Your task to perform on an android device: change notifications settings Image 0: 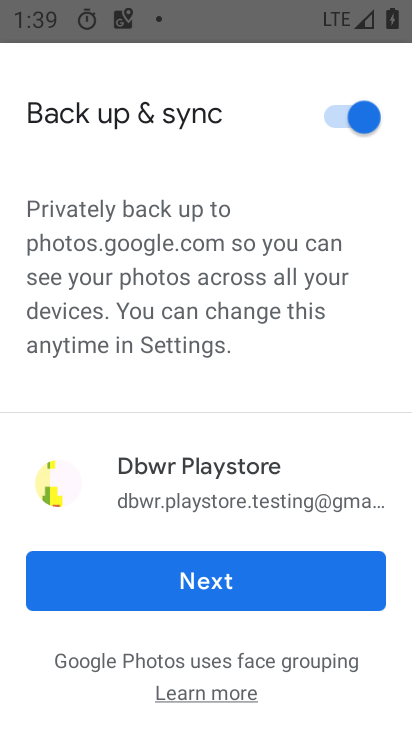
Step 0: press home button
Your task to perform on an android device: change notifications settings Image 1: 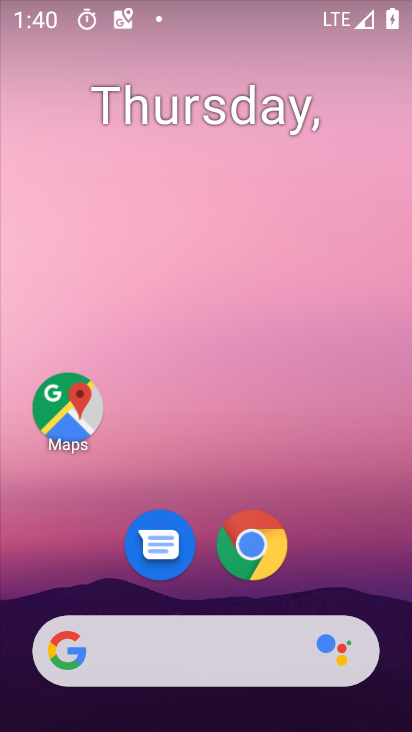
Step 1: drag from (303, 637) to (248, 0)
Your task to perform on an android device: change notifications settings Image 2: 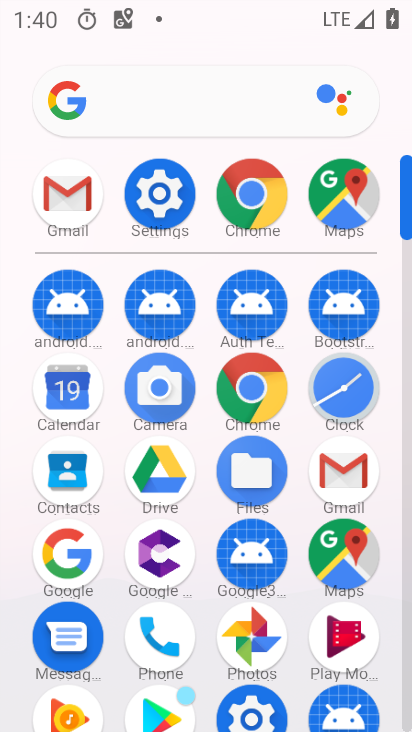
Step 2: click (153, 184)
Your task to perform on an android device: change notifications settings Image 3: 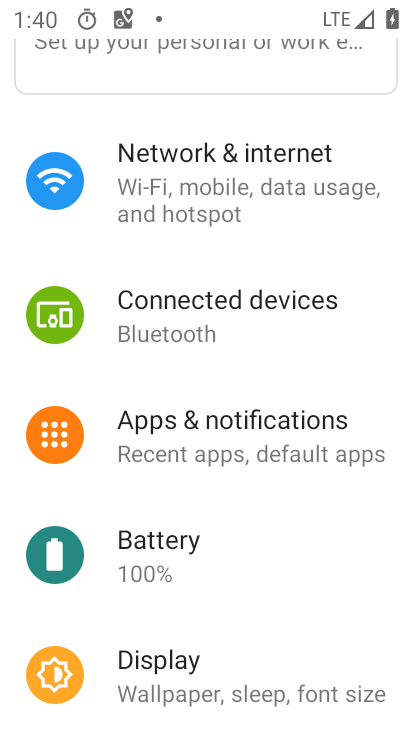
Step 3: click (256, 425)
Your task to perform on an android device: change notifications settings Image 4: 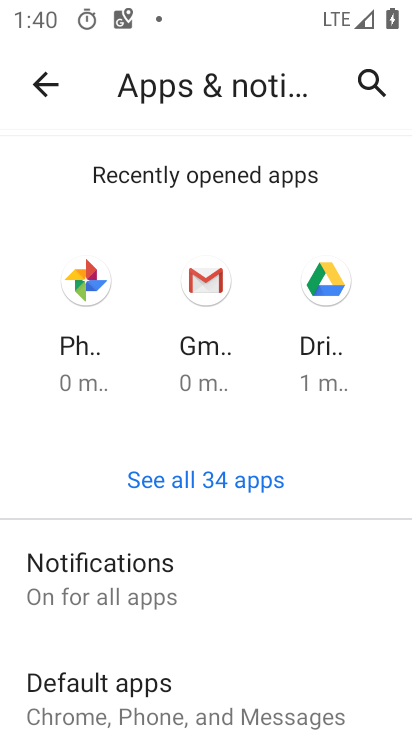
Step 4: click (184, 582)
Your task to perform on an android device: change notifications settings Image 5: 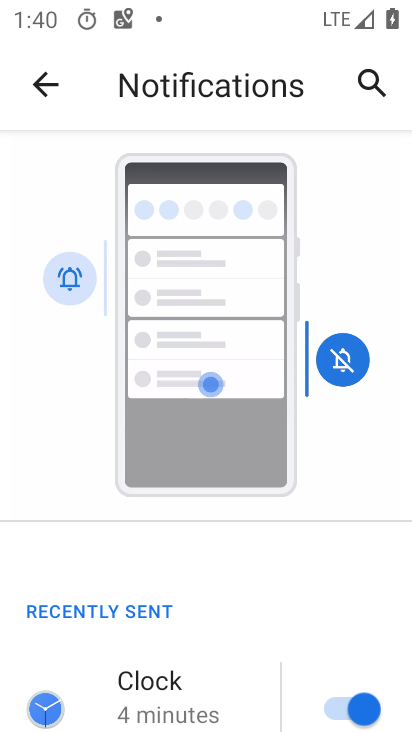
Step 5: drag from (249, 600) to (314, 105)
Your task to perform on an android device: change notifications settings Image 6: 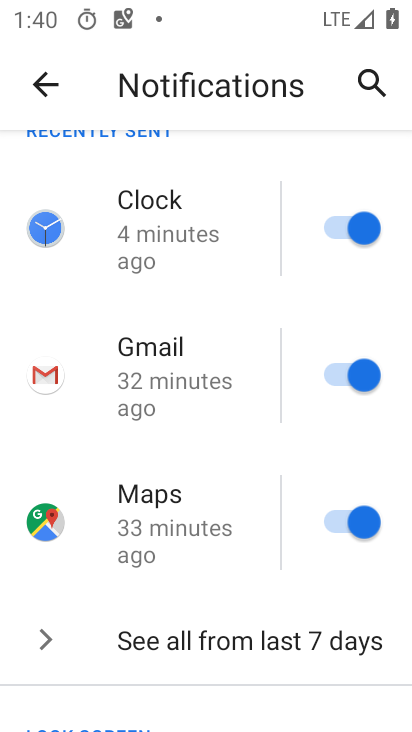
Step 6: click (347, 232)
Your task to perform on an android device: change notifications settings Image 7: 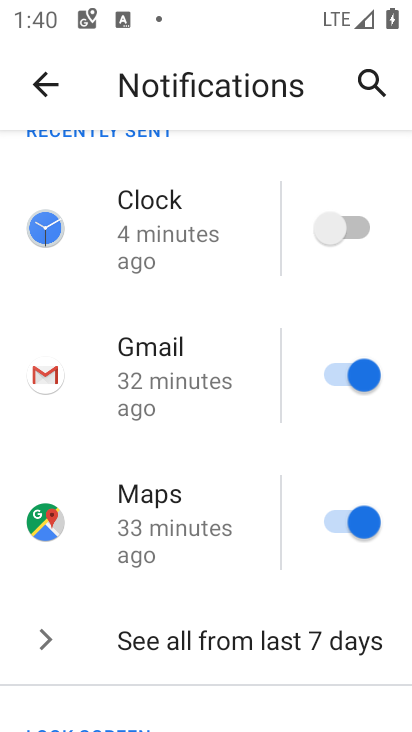
Step 7: click (355, 377)
Your task to perform on an android device: change notifications settings Image 8: 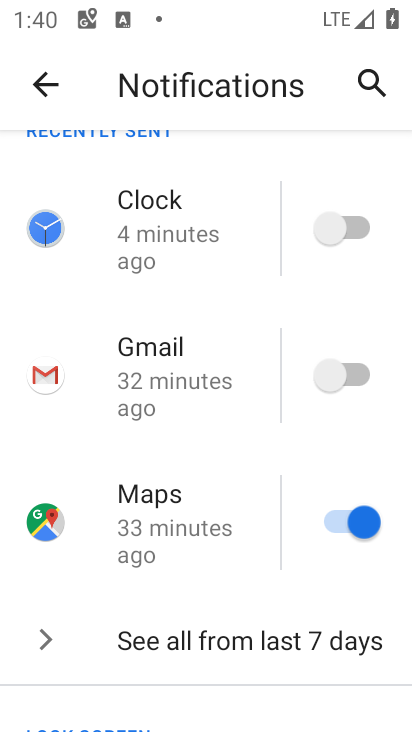
Step 8: click (338, 516)
Your task to perform on an android device: change notifications settings Image 9: 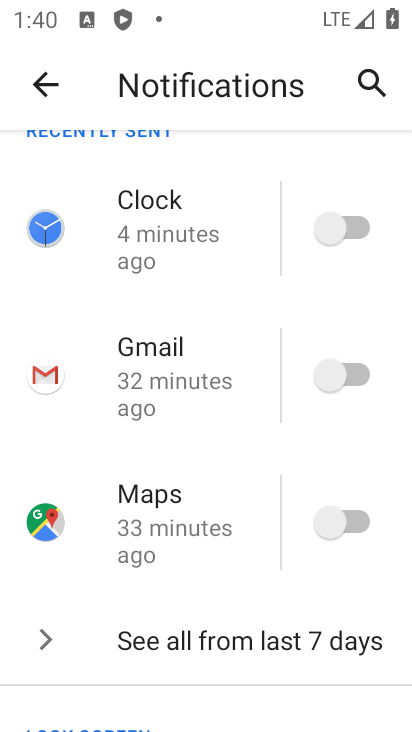
Step 9: task complete